Your task to perform on an android device: toggle javascript in the chrome app Image 0: 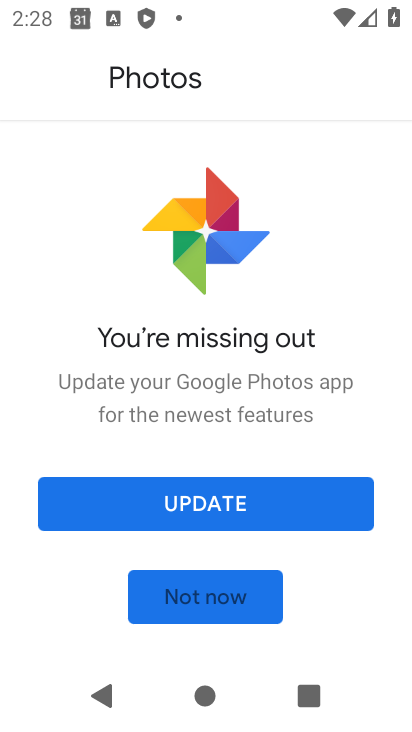
Step 0: press home button
Your task to perform on an android device: toggle javascript in the chrome app Image 1: 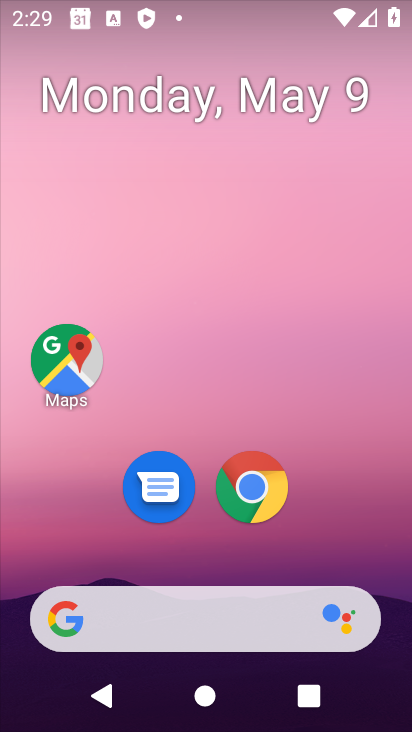
Step 1: click (263, 500)
Your task to perform on an android device: toggle javascript in the chrome app Image 2: 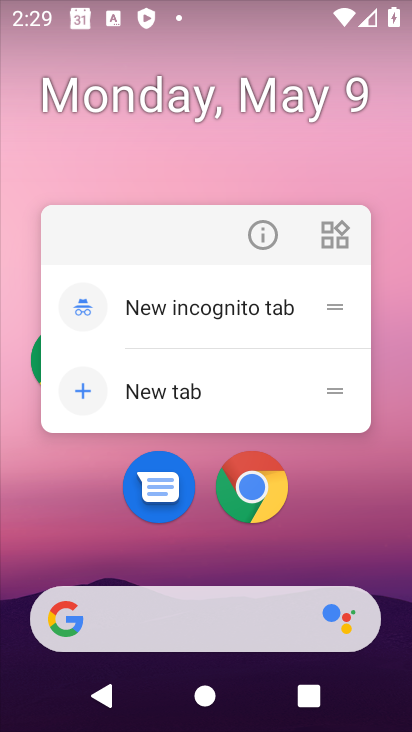
Step 2: click (263, 500)
Your task to perform on an android device: toggle javascript in the chrome app Image 3: 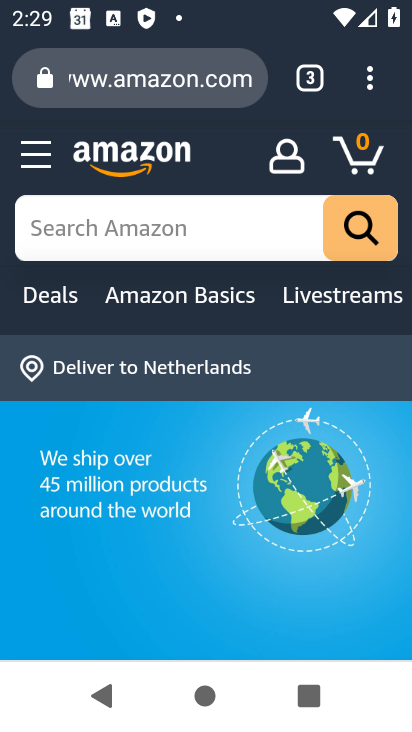
Step 3: click (366, 82)
Your task to perform on an android device: toggle javascript in the chrome app Image 4: 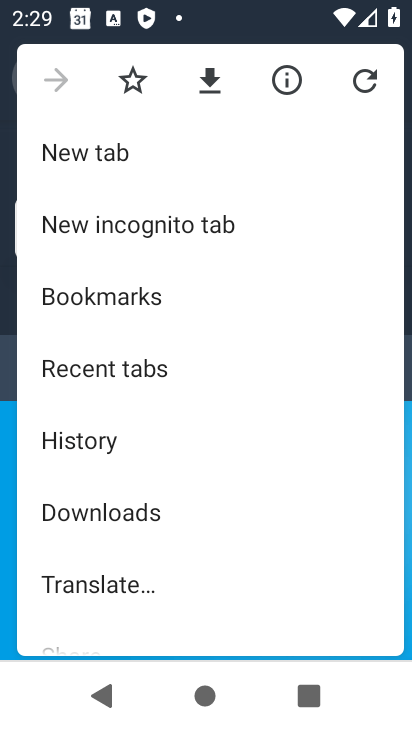
Step 4: drag from (226, 559) to (199, 165)
Your task to perform on an android device: toggle javascript in the chrome app Image 5: 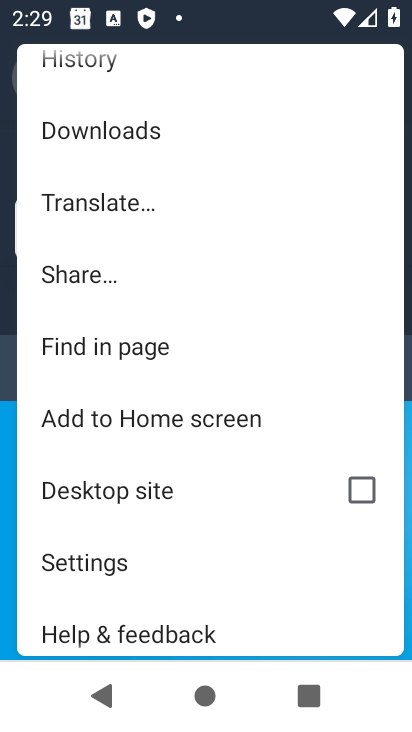
Step 5: click (142, 557)
Your task to perform on an android device: toggle javascript in the chrome app Image 6: 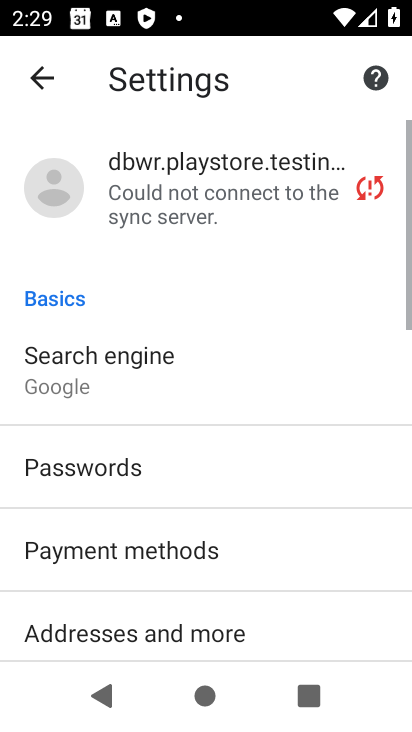
Step 6: drag from (270, 566) to (298, 169)
Your task to perform on an android device: toggle javascript in the chrome app Image 7: 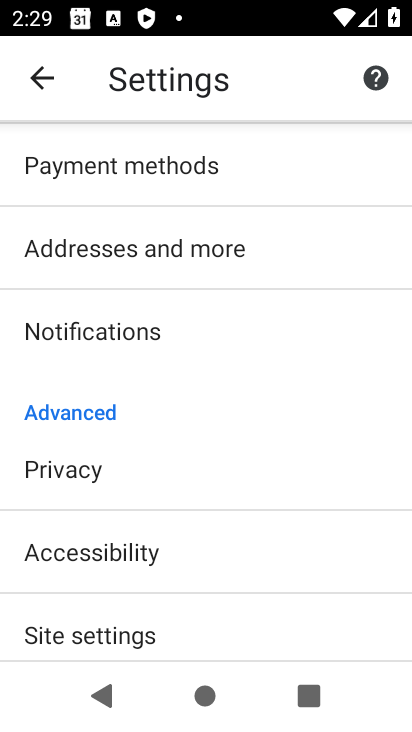
Step 7: click (154, 638)
Your task to perform on an android device: toggle javascript in the chrome app Image 8: 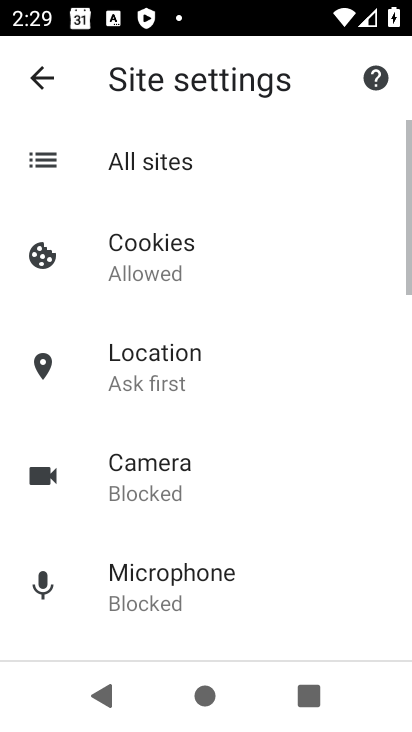
Step 8: drag from (267, 507) to (291, 109)
Your task to perform on an android device: toggle javascript in the chrome app Image 9: 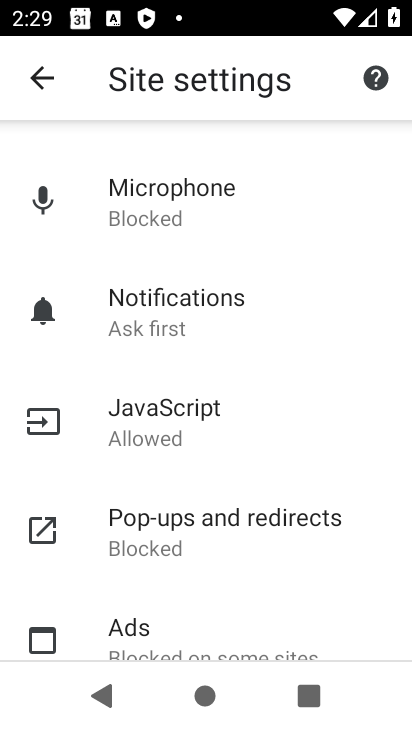
Step 9: click (234, 430)
Your task to perform on an android device: toggle javascript in the chrome app Image 10: 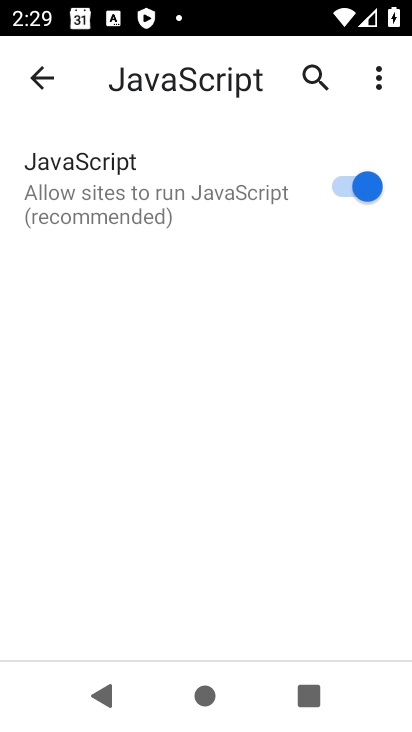
Step 10: click (345, 170)
Your task to perform on an android device: toggle javascript in the chrome app Image 11: 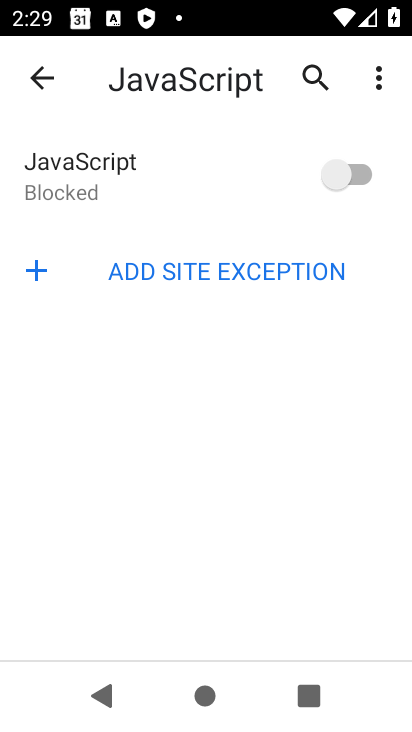
Step 11: task complete